Your task to perform on an android device: open app "Upside-Cash back on gas & food" Image 0: 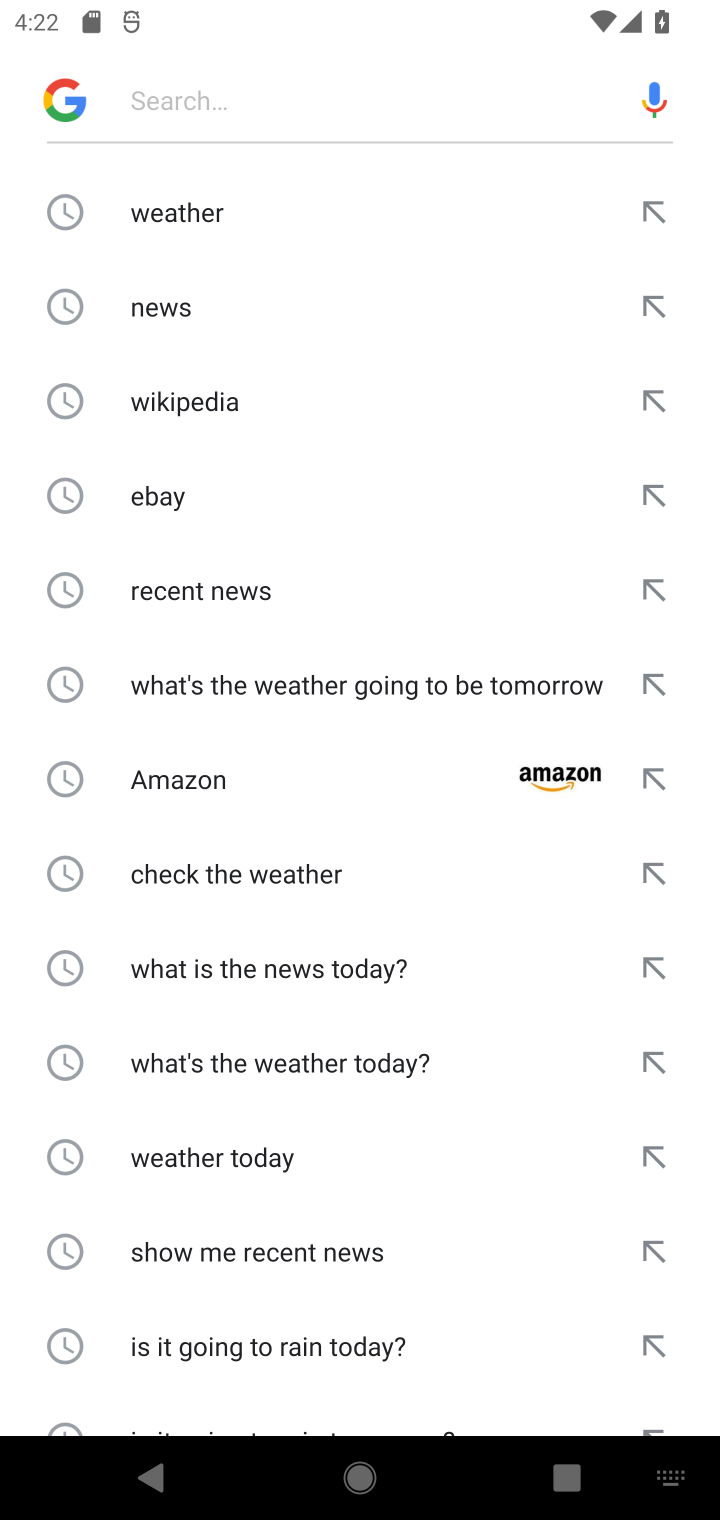
Step 0: press home button
Your task to perform on an android device: open app "Upside-Cash back on gas & food" Image 1: 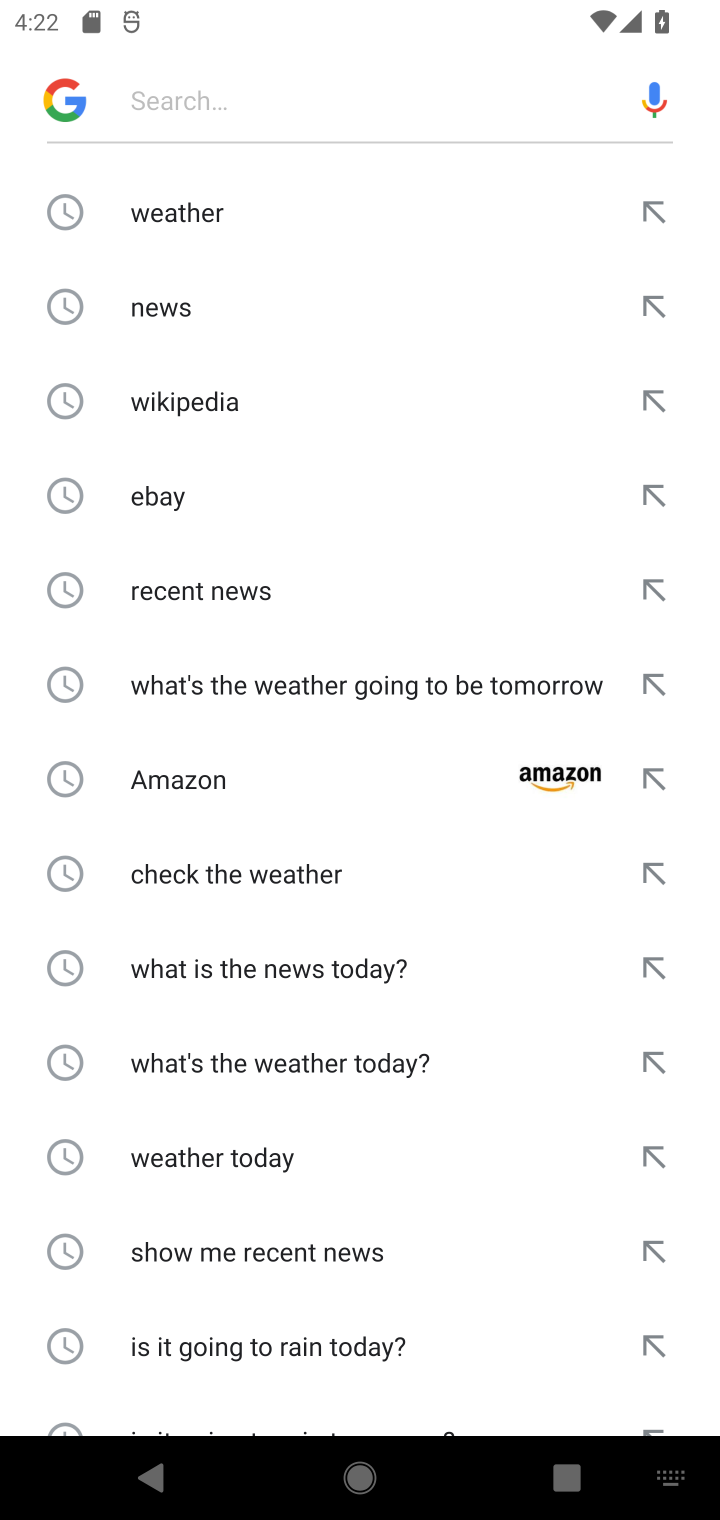
Step 1: press home button
Your task to perform on an android device: open app "Upside-Cash back on gas & food" Image 2: 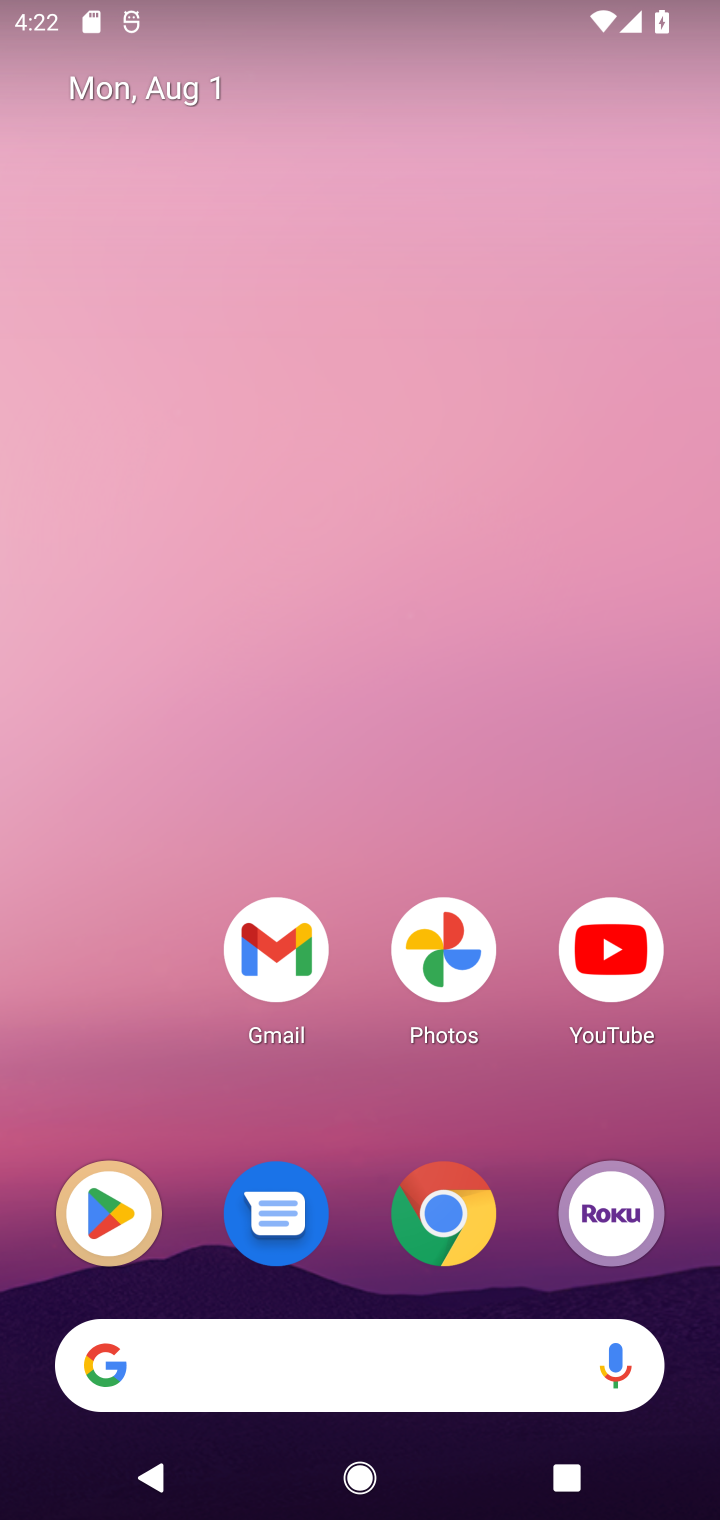
Step 2: drag from (520, 1087) to (506, 102)
Your task to perform on an android device: open app "Upside-Cash back on gas & food" Image 3: 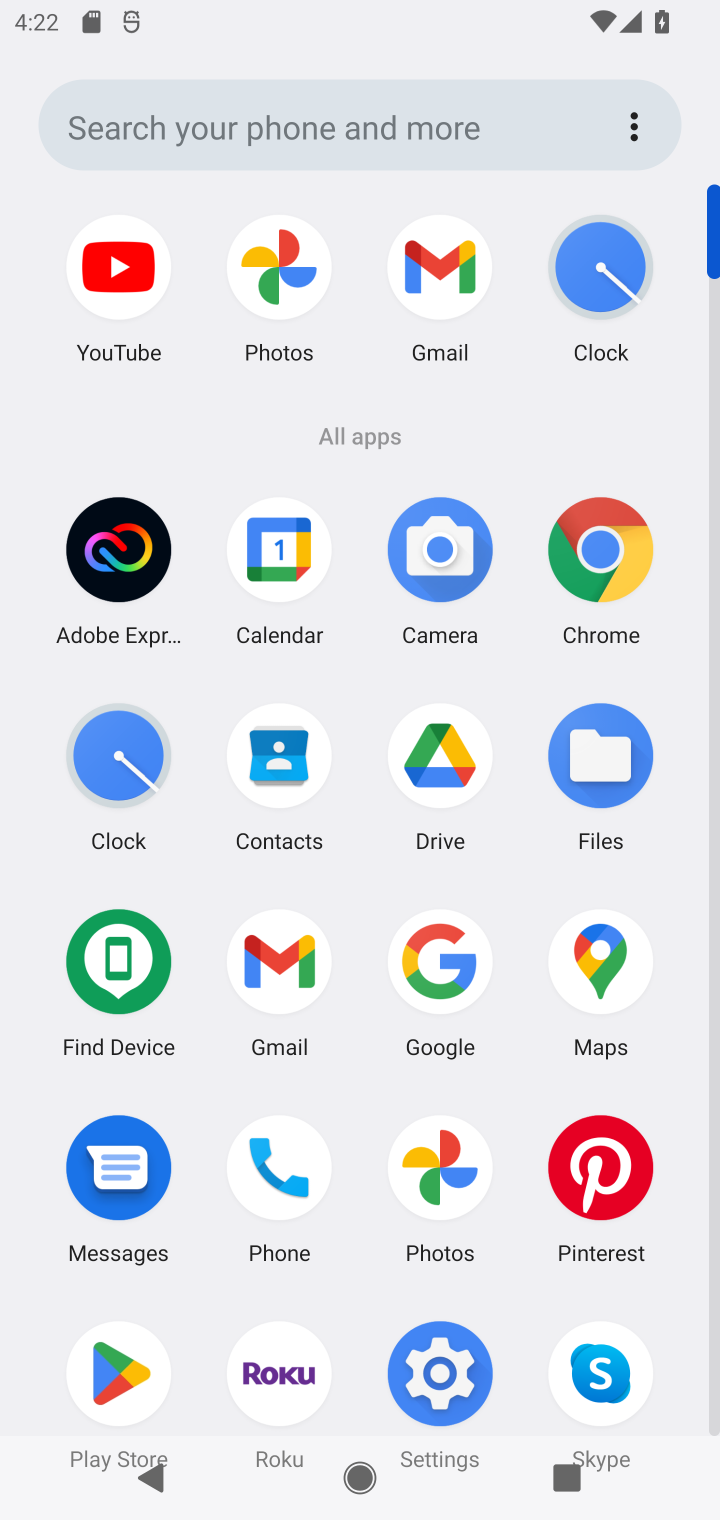
Step 3: click (140, 1363)
Your task to perform on an android device: open app "Upside-Cash back on gas & food" Image 4: 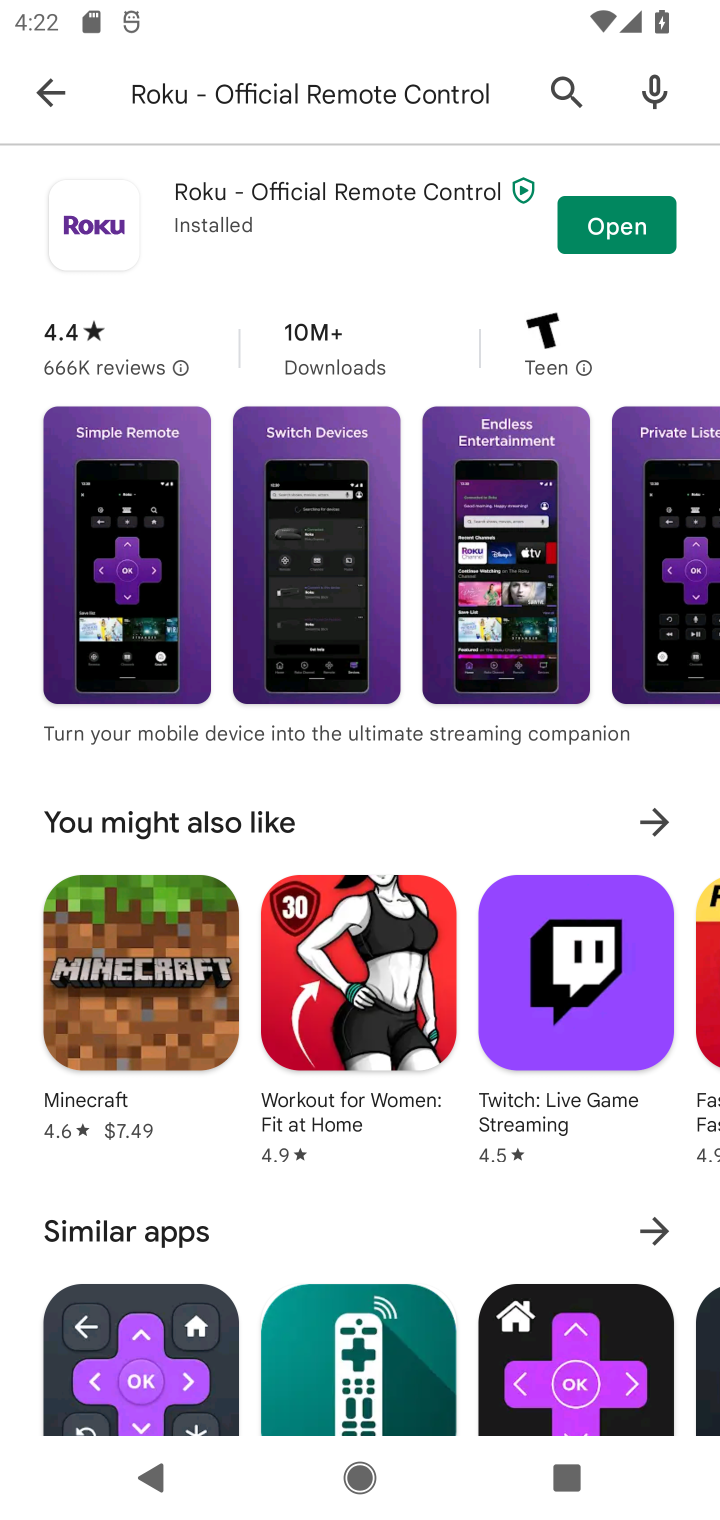
Step 4: click (404, 80)
Your task to perform on an android device: open app "Upside-Cash back on gas & food" Image 5: 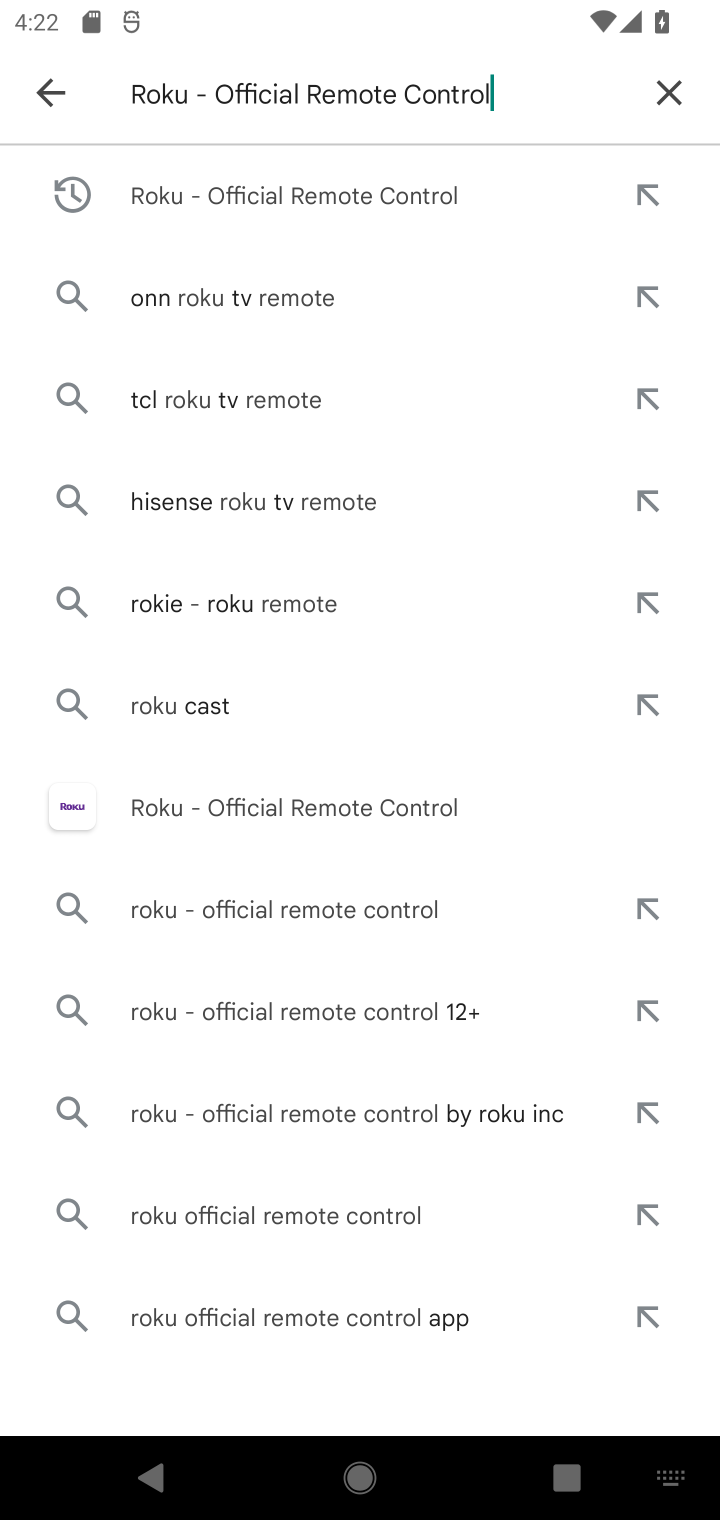
Step 5: click (671, 81)
Your task to perform on an android device: open app "Upside-Cash back on gas & food" Image 6: 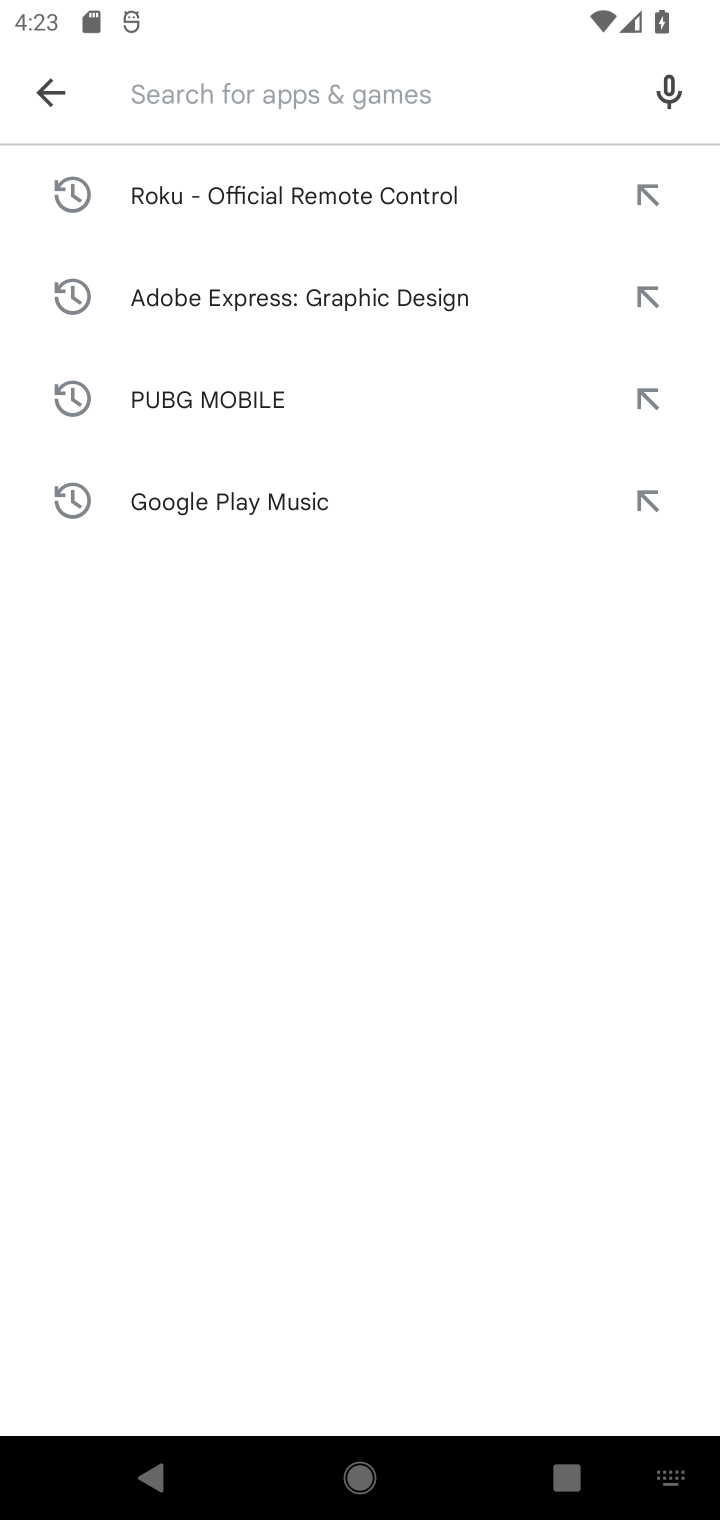
Step 6: type "Upside-Cash back on gas & food"
Your task to perform on an android device: open app "Upside-Cash back on gas & food" Image 7: 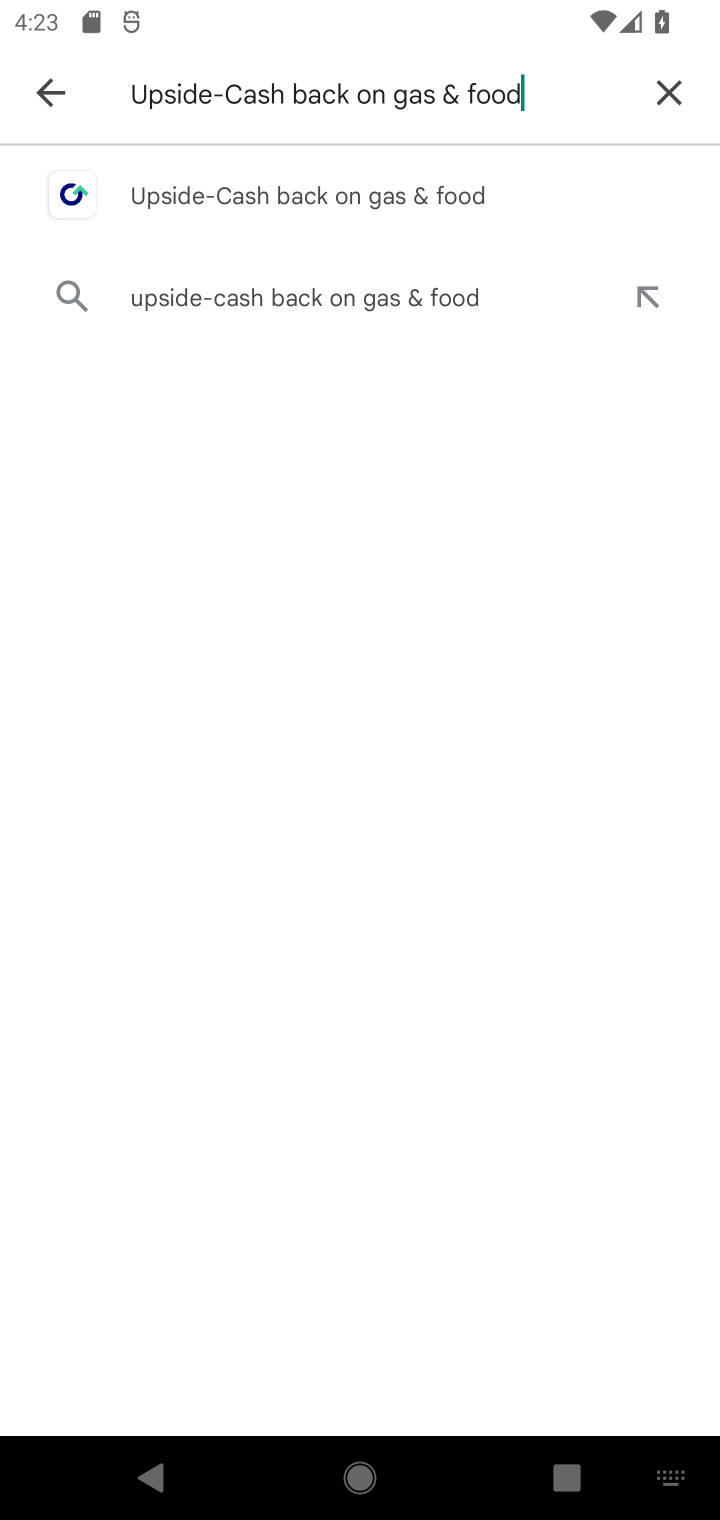
Step 7: press enter
Your task to perform on an android device: open app "Upside-Cash back on gas & food" Image 8: 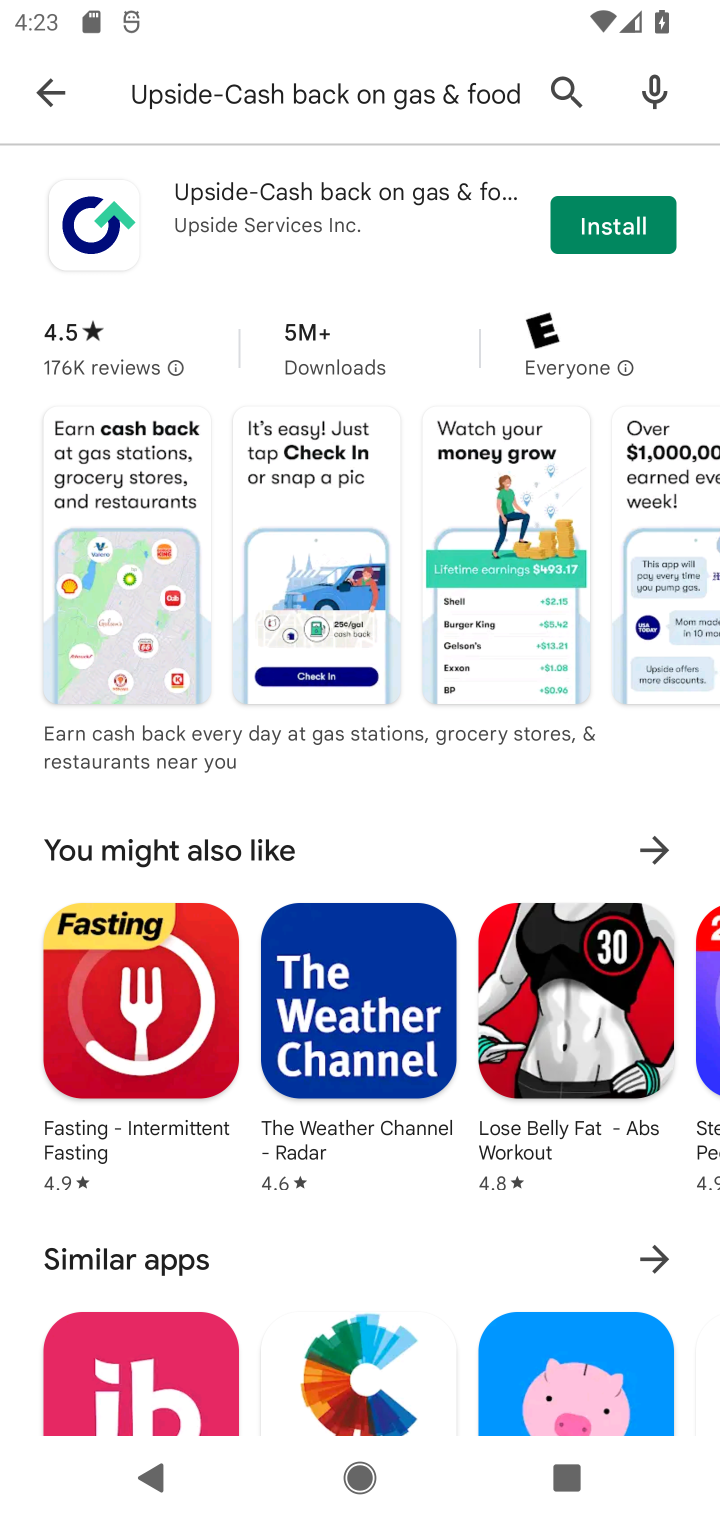
Step 8: task complete